Your task to perform on an android device: Go to eBay Image 0: 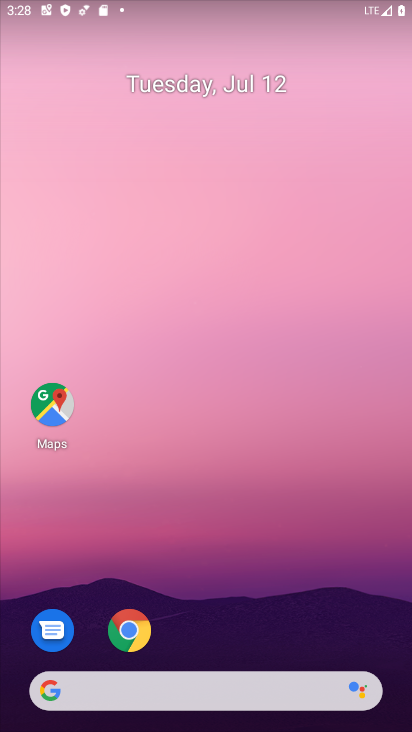
Step 0: drag from (259, 636) to (289, 42)
Your task to perform on an android device: Go to eBay Image 1: 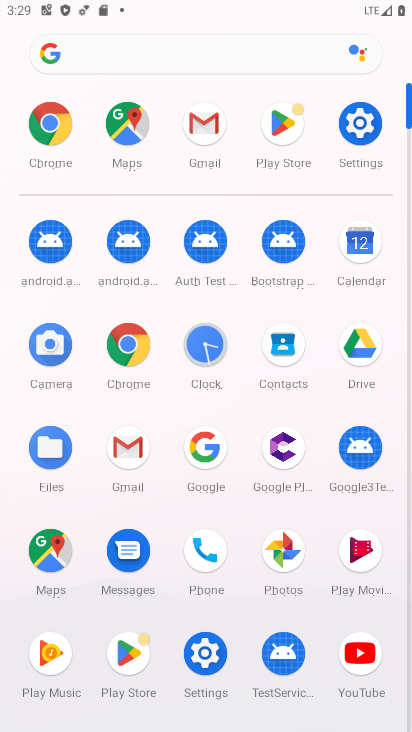
Step 1: click (135, 342)
Your task to perform on an android device: Go to eBay Image 2: 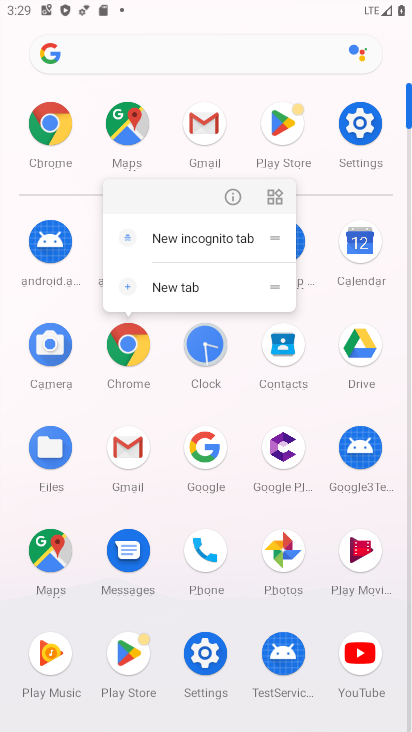
Step 2: click (123, 348)
Your task to perform on an android device: Go to eBay Image 3: 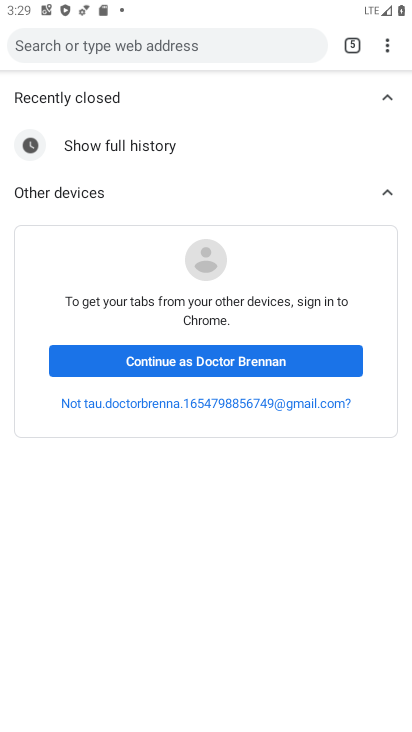
Step 3: drag from (387, 46) to (331, 81)
Your task to perform on an android device: Go to eBay Image 4: 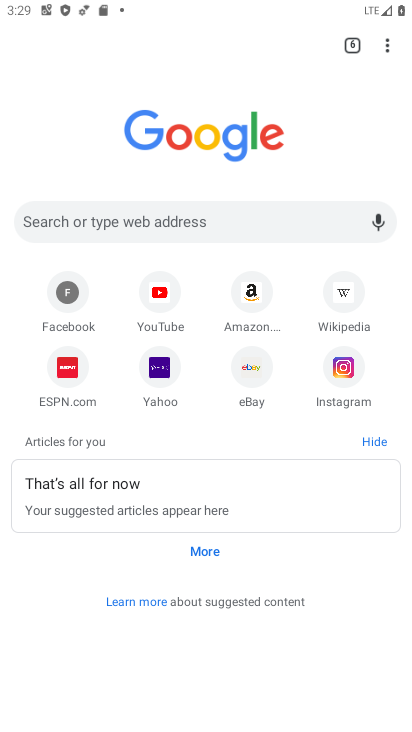
Step 4: click (245, 370)
Your task to perform on an android device: Go to eBay Image 5: 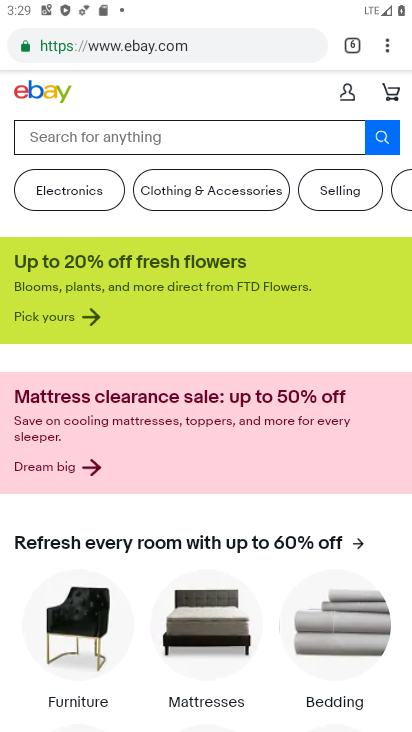
Step 5: task complete